Your task to perform on an android device: change your default location settings in chrome Image 0: 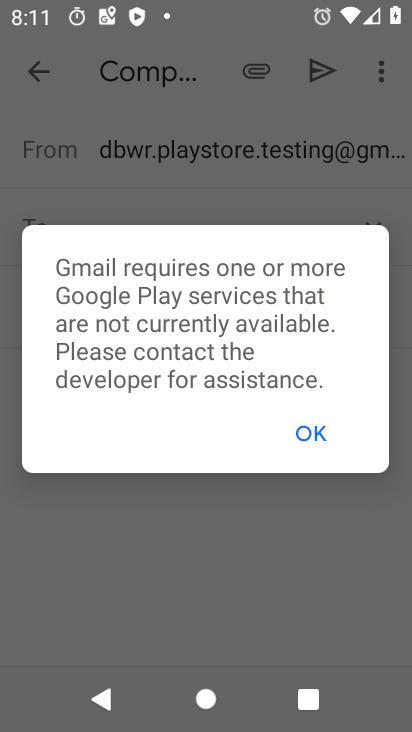
Step 0: press back button
Your task to perform on an android device: change your default location settings in chrome Image 1: 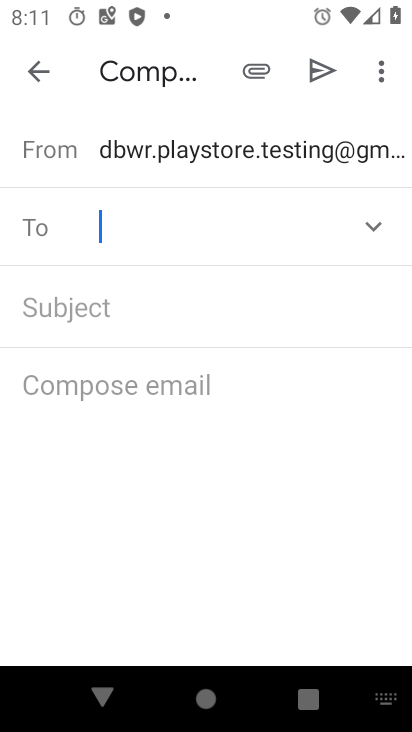
Step 1: press back button
Your task to perform on an android device: change your default location settings in chrome Image 2: 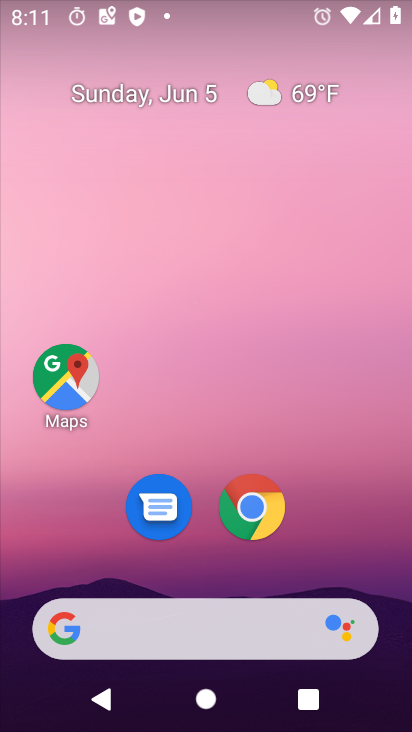
Step 2: drag from (355, 509) to (267, 0)
Your task to perform on an android device: change your default location settings in chrome Image 3: 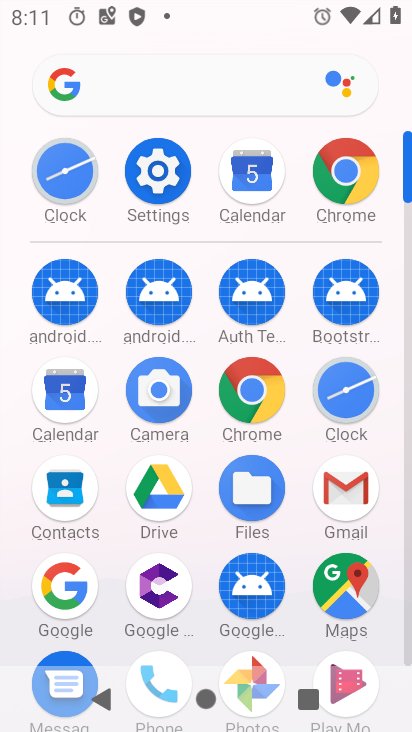
Step 3: click (250, 397)
Your task to perform on an android device: change your default location settings in chrome Image 4: 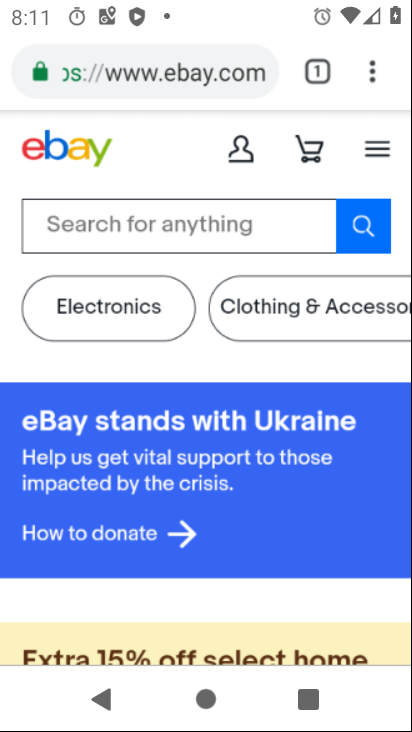
Step 4: task complete